Your task to perform on an android device: Go to display settings Image 0: 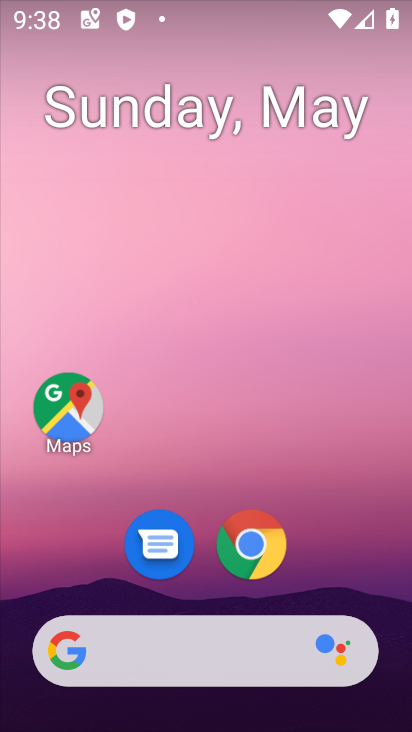
Step 0: drag from (359, 505) to (5, 252)
Your task to perform on an android device: Go to display settings Image 1: 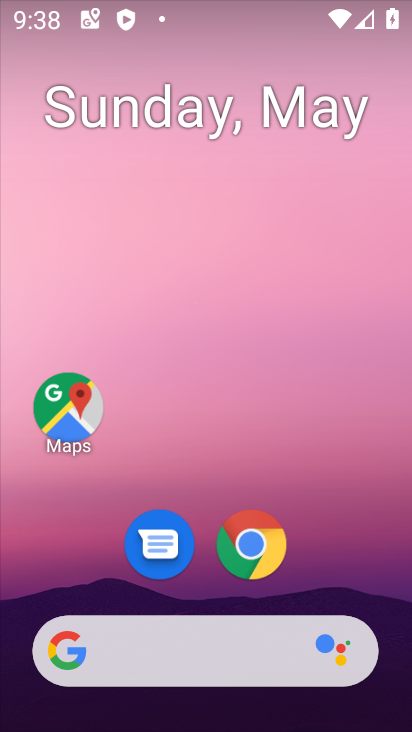
Step 1: drag from (318, 583) to (257, 1)
Your task to perform on an android device: Go to display settings Image 2: 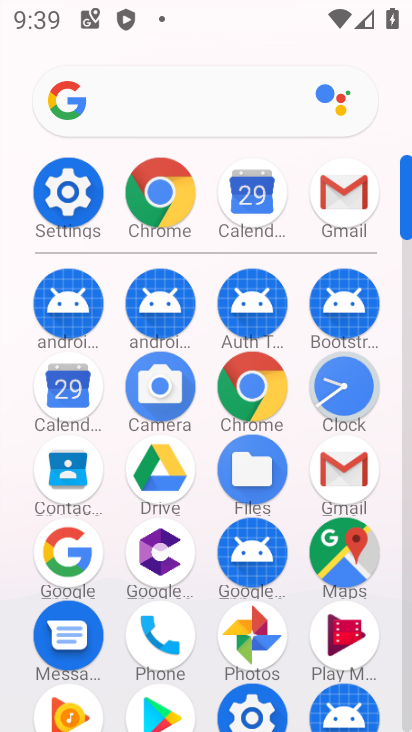
Step 2: click (68, 195)
Your task to perform on an android device: Go to display settings Image 3: 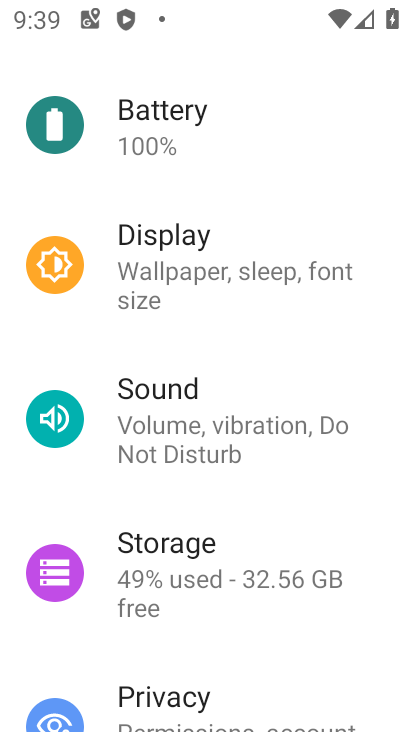
Step 3: click (214, 264)
Your task to perform on an android device: Go to display settings Image 4: 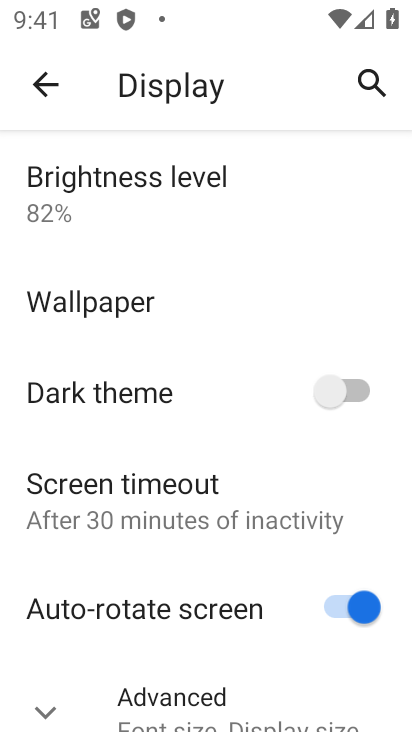
Step 4: task complete